Your task to perform on an android device: Toggle the flashlight Image 0: 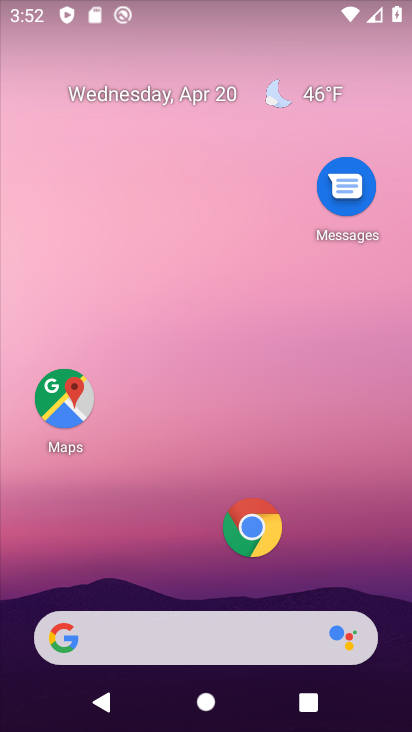
Step 0: task impossible